Your task to perform on an android device: set an alarm Image 0: 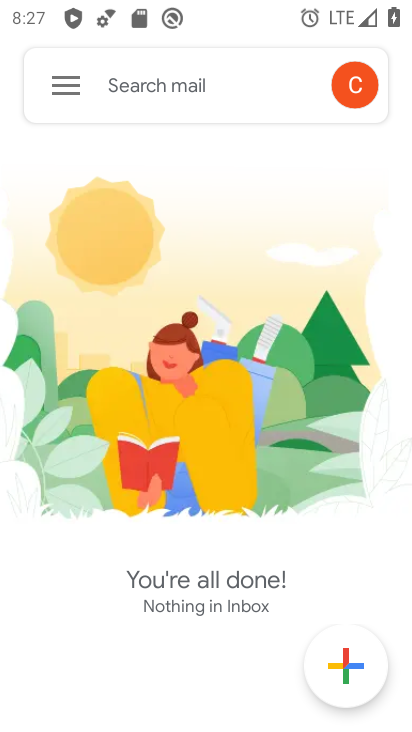
Step 0: press home button
Your task to perform on an android device: set an alarm Image 1: 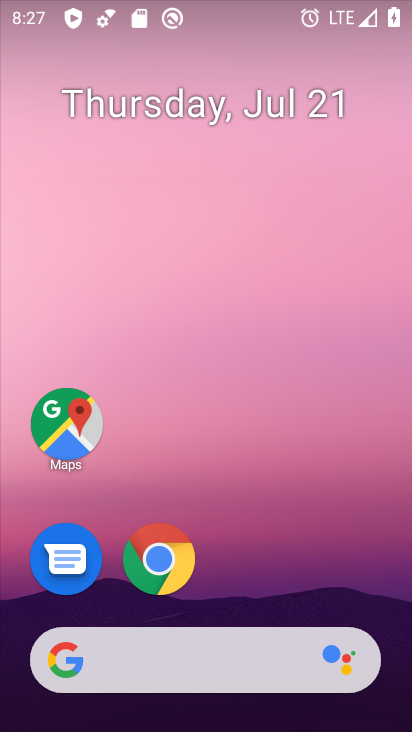
Step 1: drag from (288, 536) to (352, 194)
Your task to perform on an android device: set an alarm Image 2: 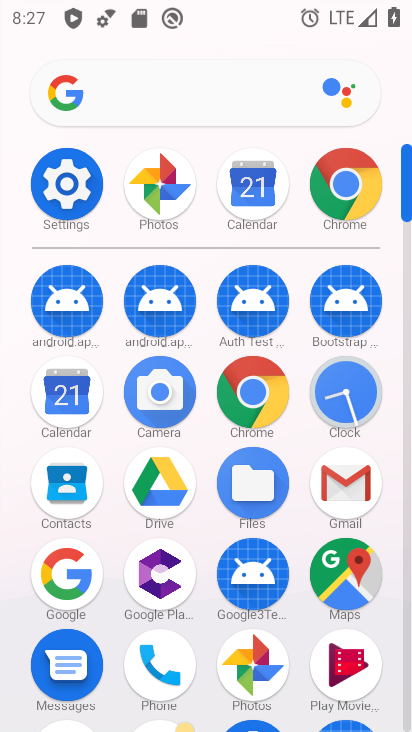
Step 2: click (353, 393)
Your task to perform on an android device: set an alarm Image 3: 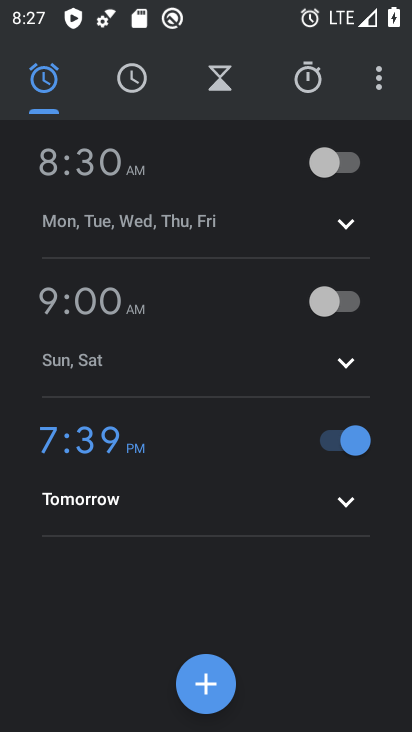
Step 3: click (203, 690)
Your task to perform on an android device: set an alarm Image 4: 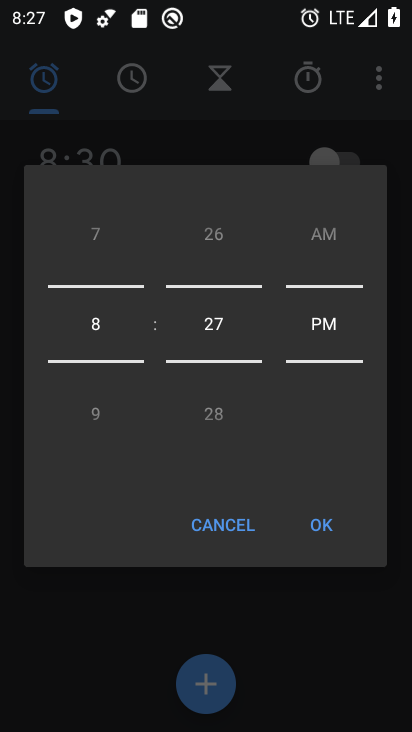
Step 4: click (317, 524)
Your task to perform on an android device: set an alarm Image 5: 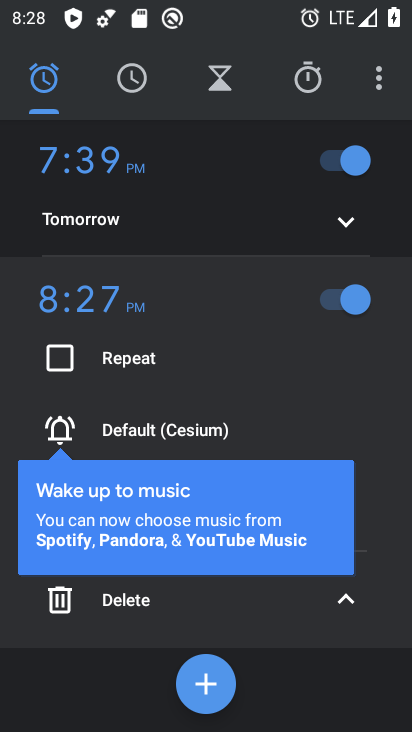
Step 5: task complete